Your task to perform on an android device: Open location settings Image 0: 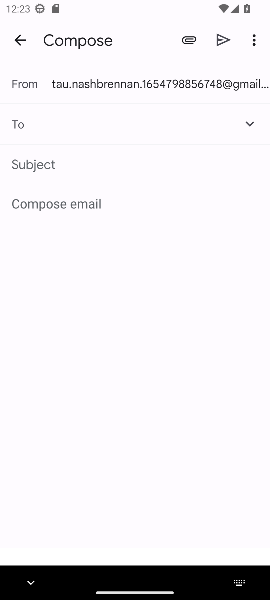
Step 0: press home button
Your task to perform on an android device: Open location settings Image 1: 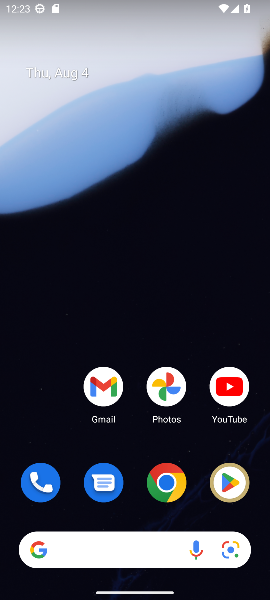
Step 1: drag from (116, 454) to (146, 188)
Your task to perform on an android device: Open location settings Image 2: 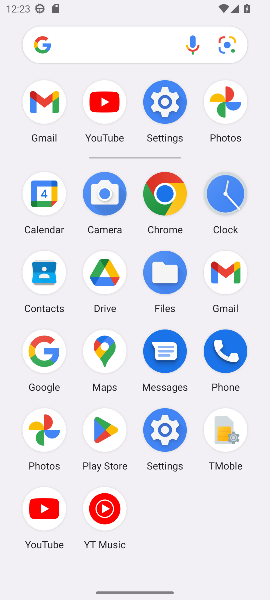
Step 2: click (172, 115)
Your task to perform on an android device: Open location settings Image 3: 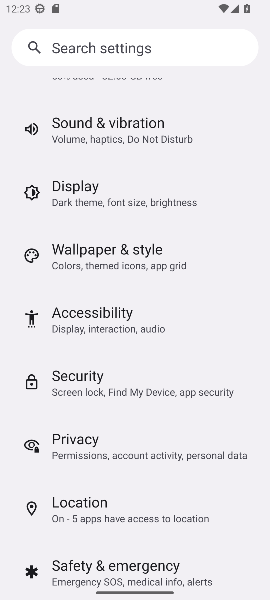
Step 3: click (121, 510)
Your task to perform on an android device: Open location settings Image 4: 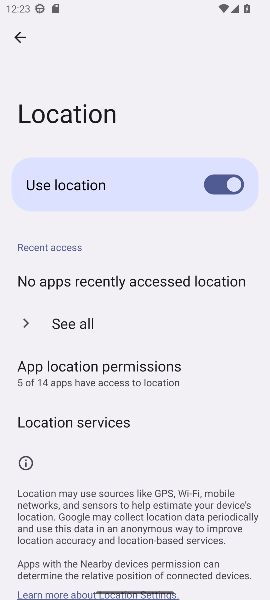
Step 4: task complete